Your task to perform on an android device: add a contact Image 0: 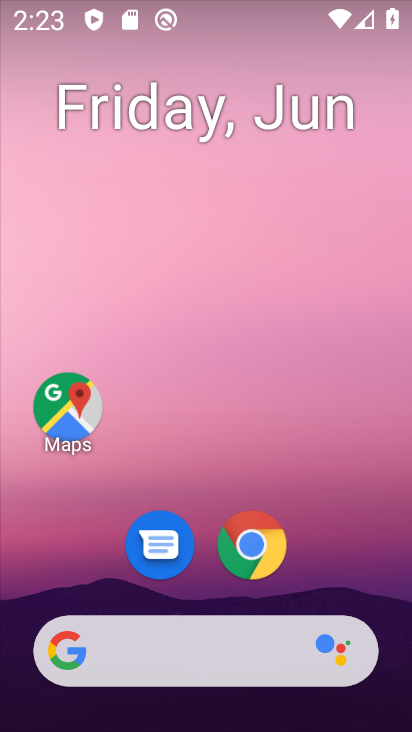
Step 0: drag from (300, 588) to (347, 115)
Your task to perform on an android device: add a contact Image 1: 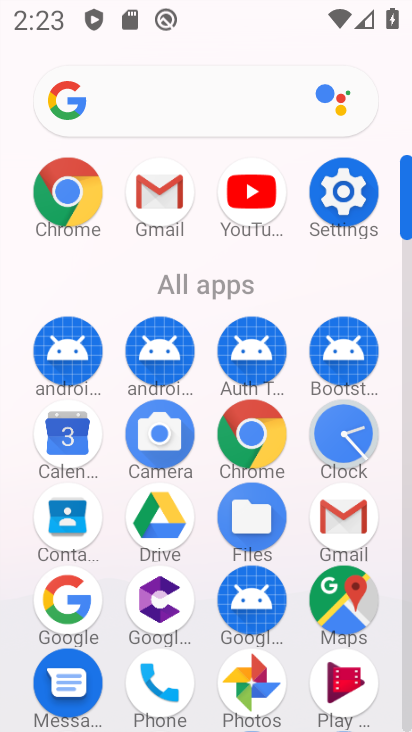
Step 1: click (75, 542)
Your task to perform on an android device: add a contact Image 2: 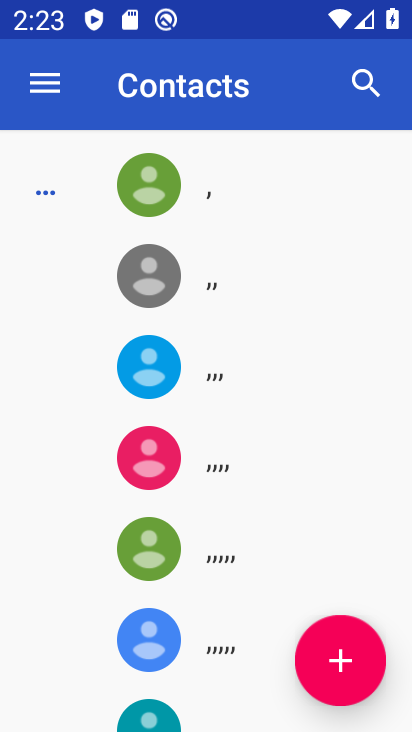
Step 2: click (352, 666)
Your task to perform on an android device: add a contact Image 3: 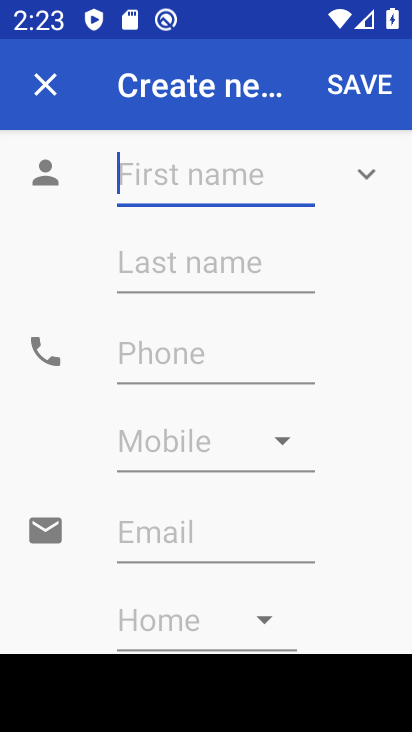
Step 3: type "apppq"
Your task to perform on an android device: add a contact Image 4: 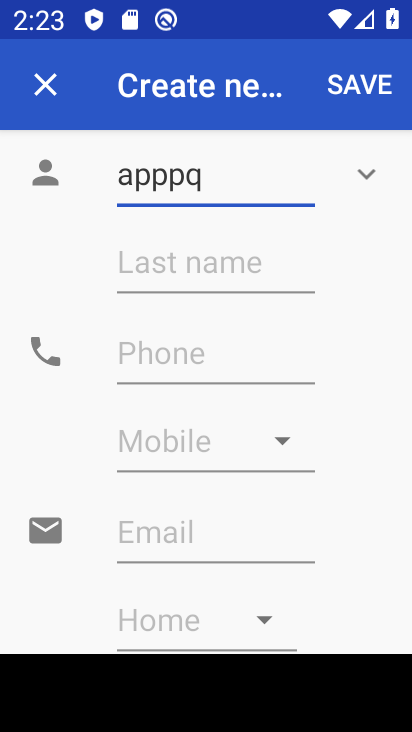
Step 4: click (376, 82)
Your task to perform on an android device: add a contact Image 5: 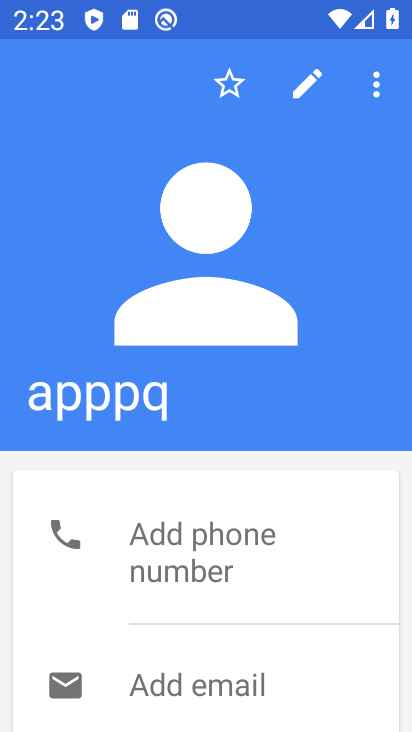
Step 5: task complete